Your task to perform on an android device: Go to wifi settings Image 0: 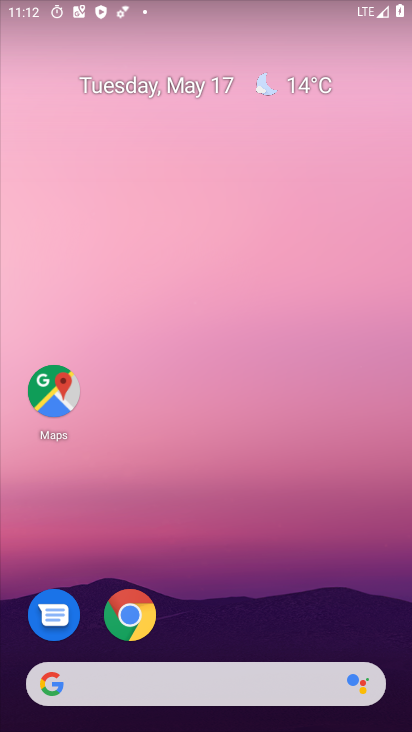
Step 0: press home button
Your task to perform on an android device: Go to wifi settings Image 1: 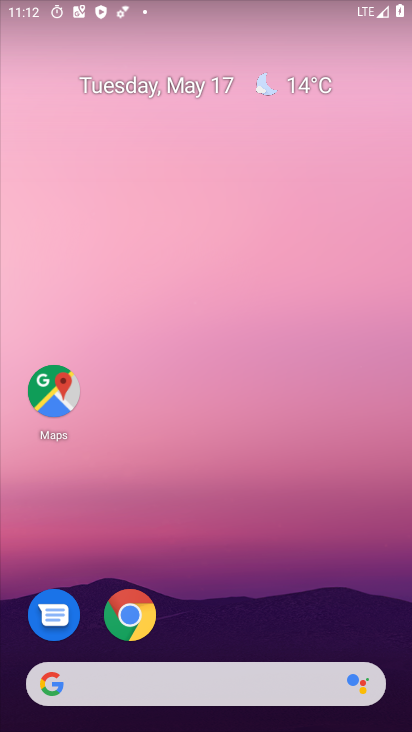
Step 1: drag from (153, 681) to (327, 128)
Your task to perform on an android device: Go to wifi settings Image 2: 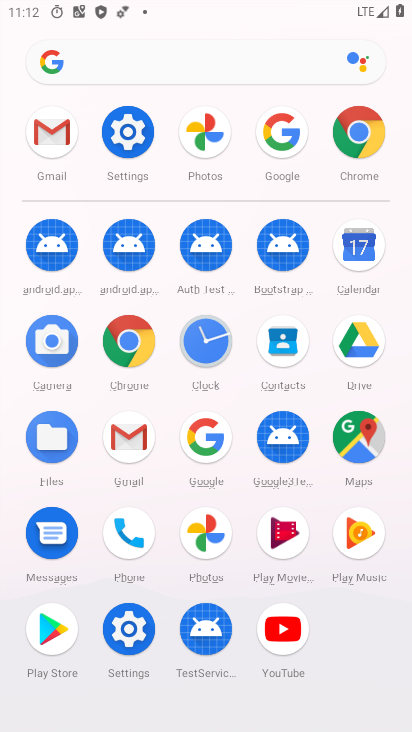
Step 2: click (131, 138)
Your task to perform on an android device: Go to wifi settings Image 3: 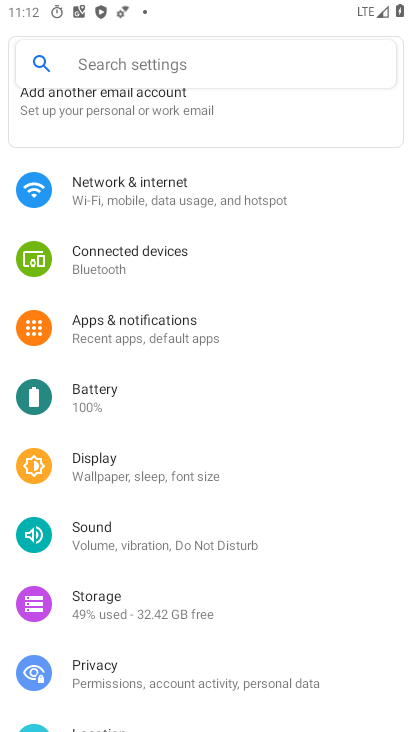
Step 3: click (180, 195)
Your task to perform on an android device: Go to wifi settings Image 4: 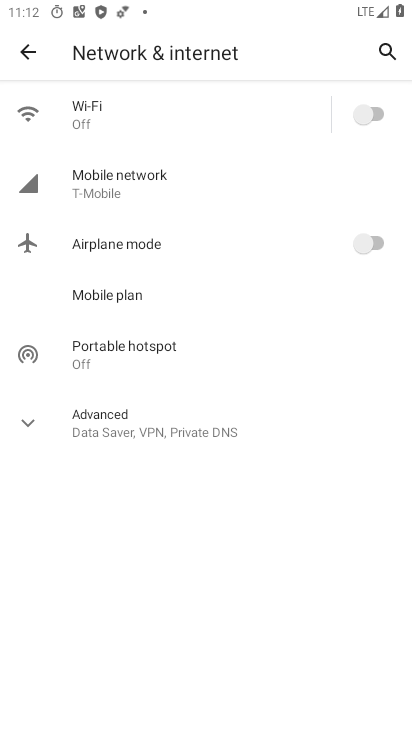
Step 4: click (135, 115)
Your task to perform on an android device: Go to wifi settings Image 5: 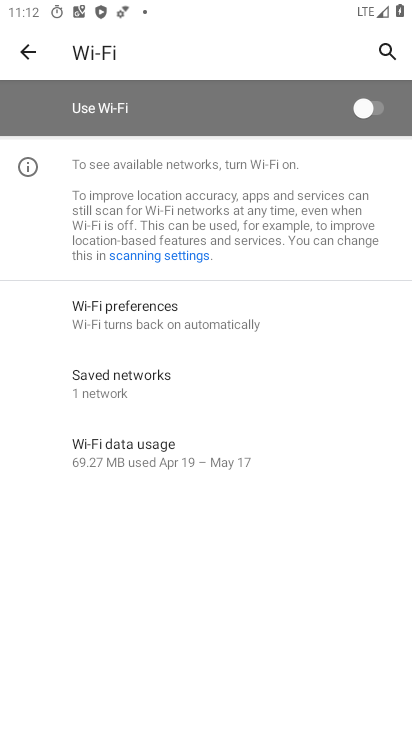
Step 5: task complete